Your task to perform on an android device: turn off location history Image 0: 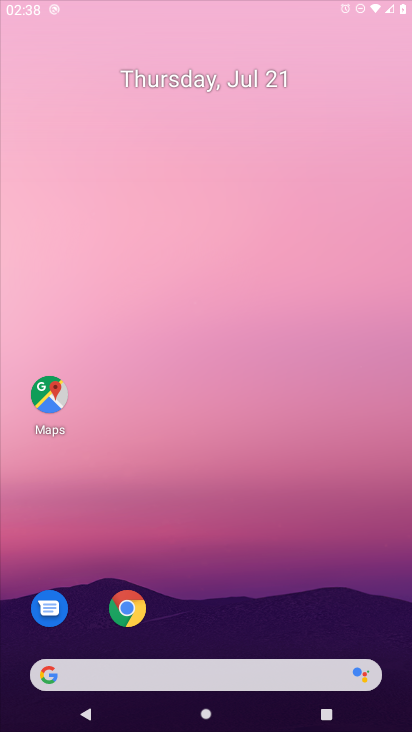
Step 0: press home button
Your task to perform on an android device: turn off location history Image 1: 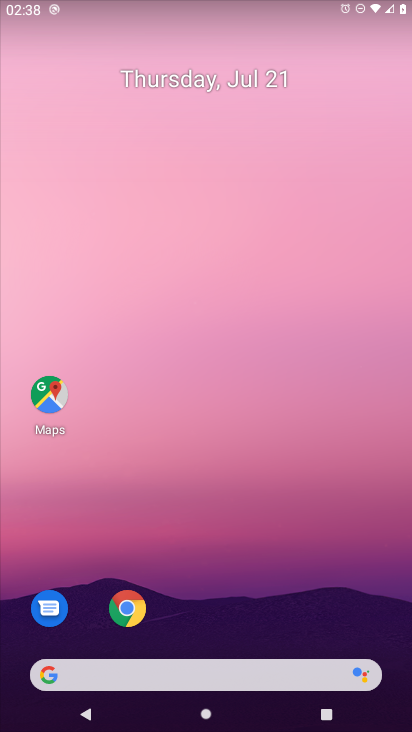
Step 1: drag from (245, 630) to (264, 33)
Your task to perform on an android device: turn off location history Image 2: 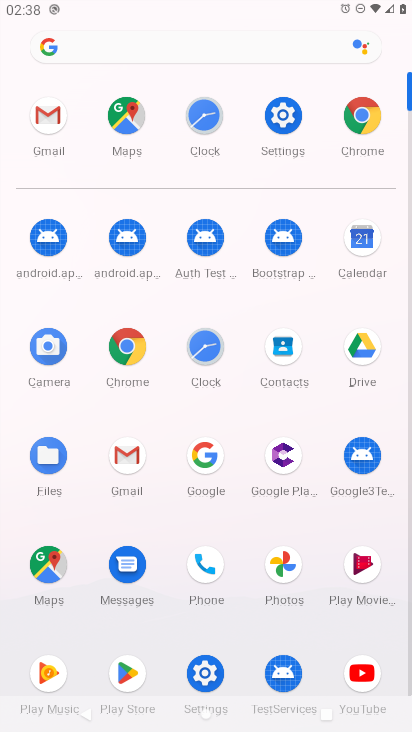
Step 2: click (281, 112)
Your task to perform on an android device: turn off location history Image 3: 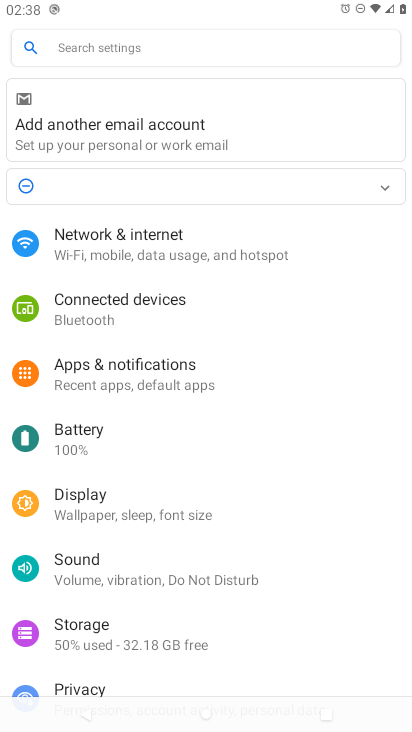
Step 3: drag from (347, 609) to (304, 133)
Your task to perform on an android device: turn off location history Image 4: 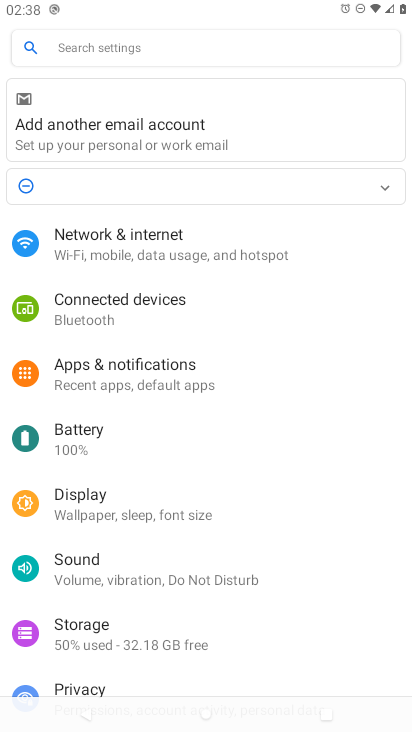
Step 4: drag from (341, 542) to (225, 88)
Your task to perform on an android device: turn off location history Image 5: 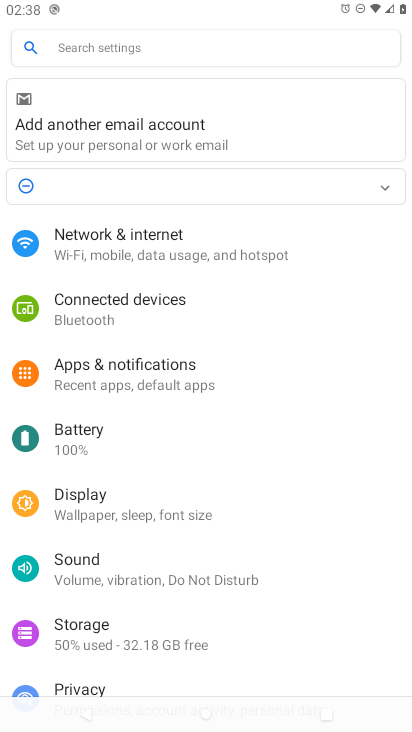
Step 5: drag from (305, 632) to (340, 192)
Your task to perform on an android device: turn off location history Image 6: 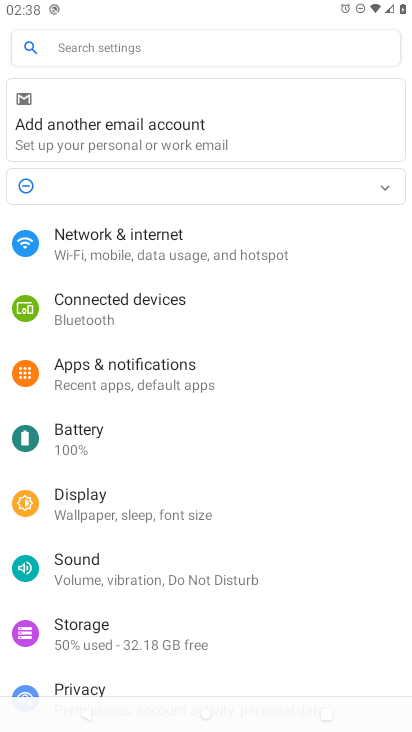
Step 6: drag from (303, 671) to (245, 164)
Your task to perform on an android device: turn off location history Image 7: 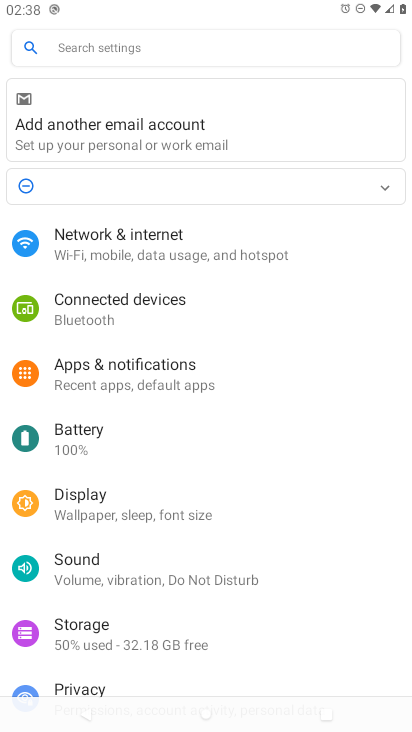
Step 7: drag from (351, 593) to (389, 37)
Your task to perform on an android device: turn off location history Image 8: 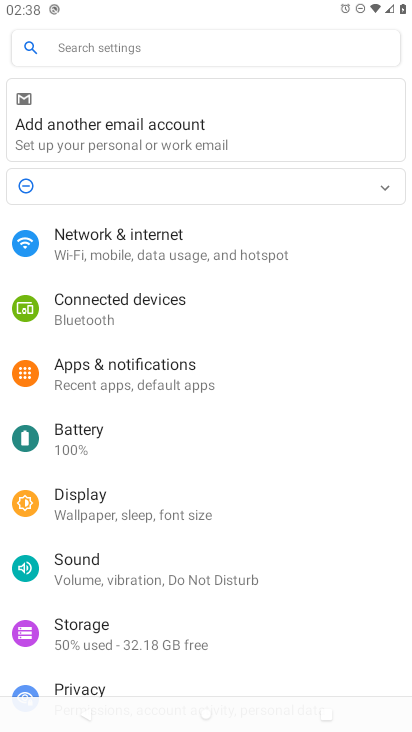
Step 8: drag from (267, 640) to (235, 5)
Your task to perform on an android device: turn off location history Image 9: 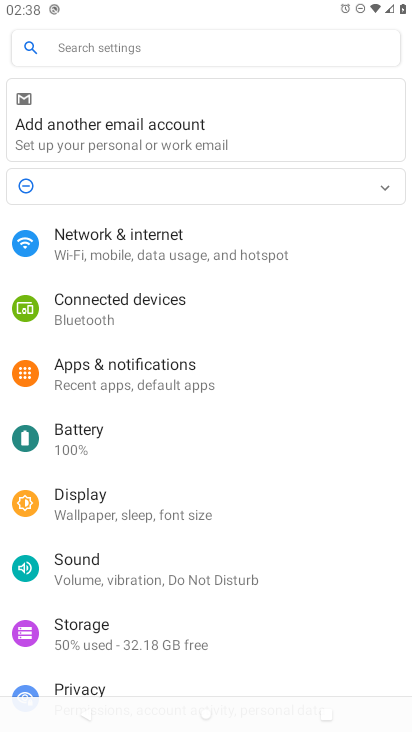
Step 9: drag from (265, 564) to (229, 6)
Your task to perform on an android device: turn off location history Image 10: 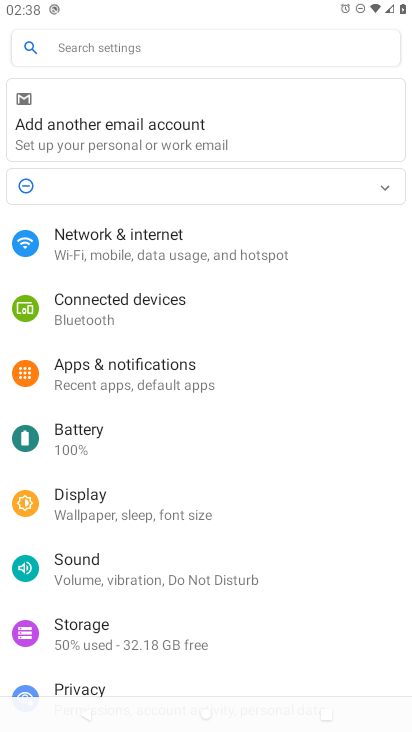
Step 10: drag from (253, 635) to (153, 11)
Your task to perform on an android device: turn off location history Image 11: 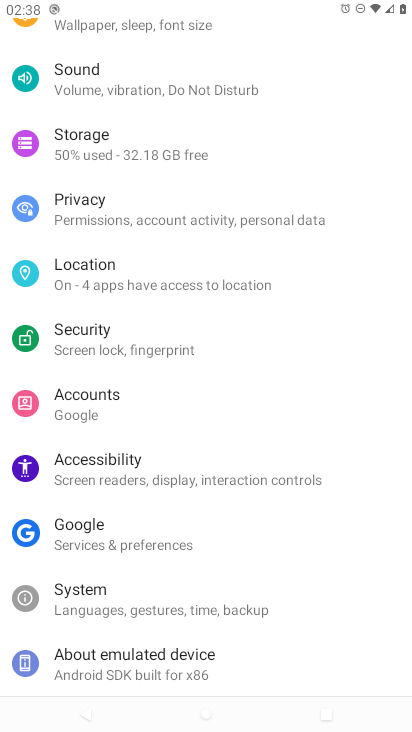
Step 11: click (82, 274)
Your task to perform on an android device: turn off location history Image 12: 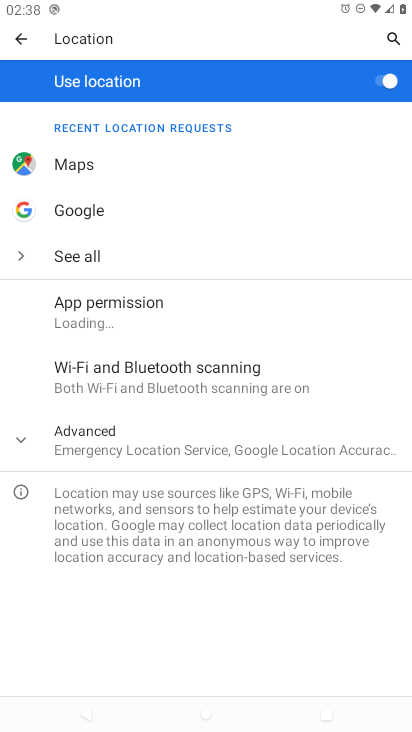
Step 12: click (93, 429)
Your task to perform on an android device: turn off location history Image 13: 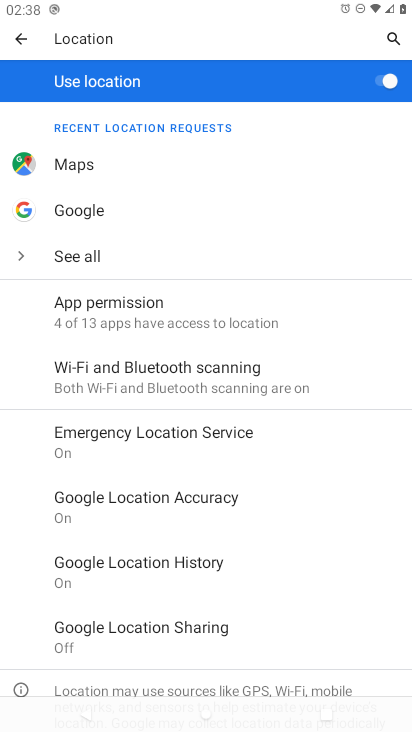
Step 13: click (183, 564)
Your task to perform on an android device: turn off location history Image 14: 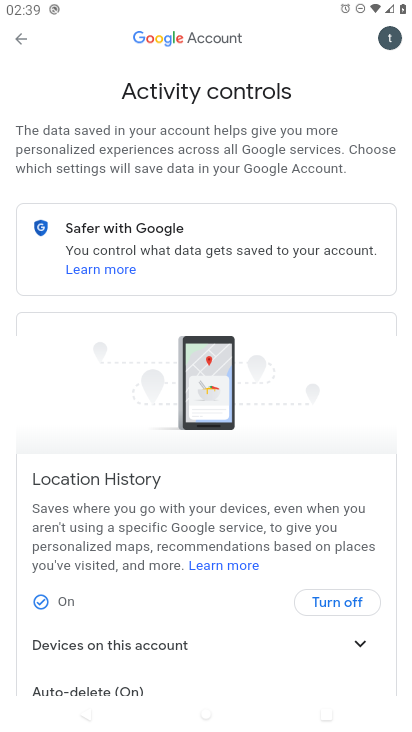
Step 14: click (336, 598)
Your task to perform on an android device: turn off location history Image 15: 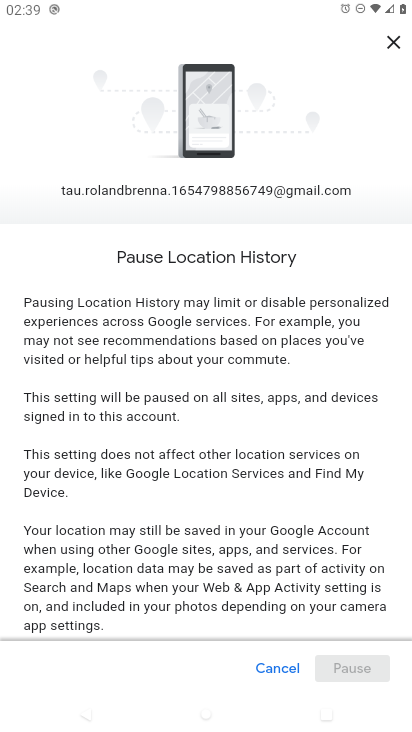
Step 15: drag from (380, 622) to (353, 88)
Your task to perform on an android device: turn off location history Image 16: 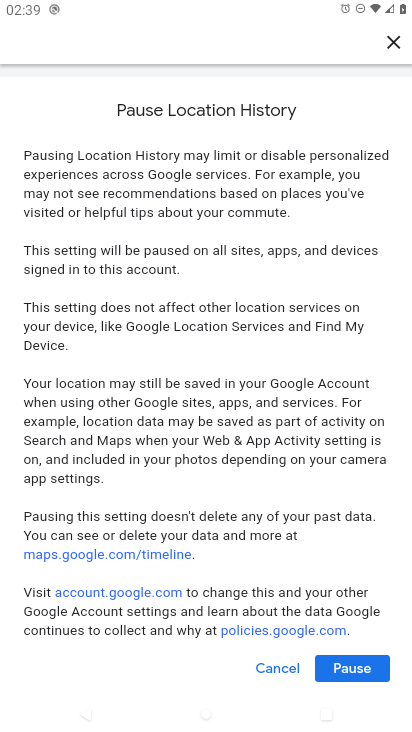
Step 16: drag from (315, 496) to (329, 152)
Your task to perform on an android device: turn off location history Image 17: 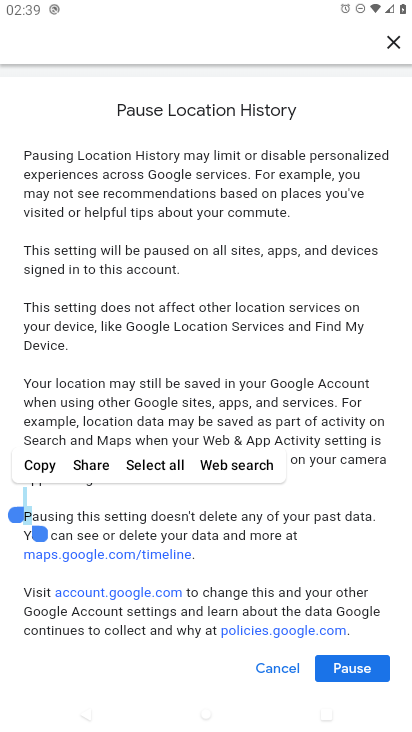
Step 17: click (352, 665)
Your task to perform on an android device: turn off location history Image 18: 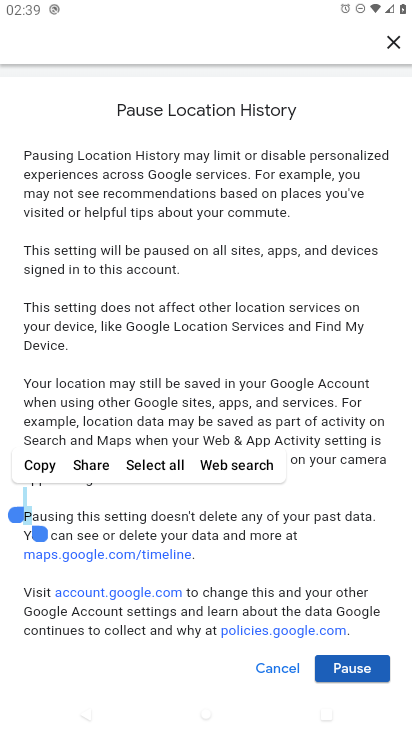
Step 18: click (343, 667)
Your task to perform on an android device: turn off location history Image 19: 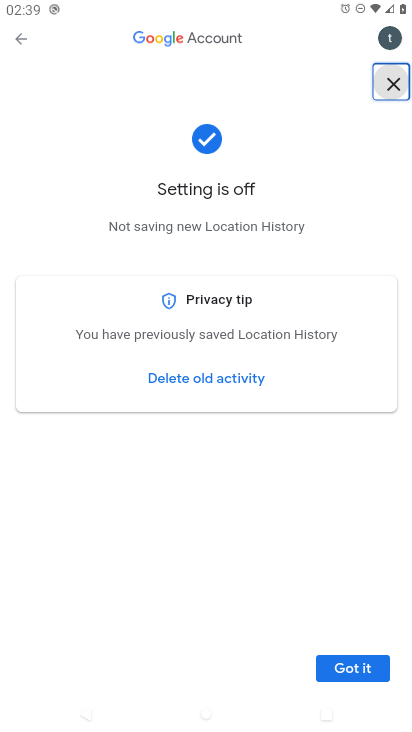
Step 19: click (342, 663)
Your task to perform on an android device: turn off location history Image 20: 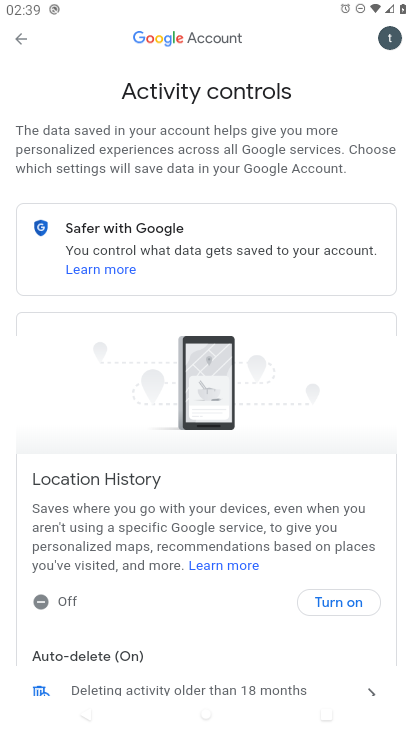
Step 20: task complete